Your task to perform on an android device: change the clock style Image 0: 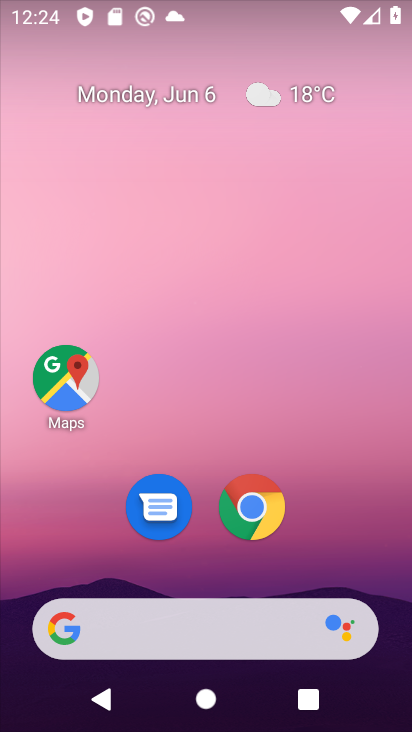
Step 0: drag from (231, 564) to (286, 47)
Your task to perform on an android device: change the clock style Image 1: 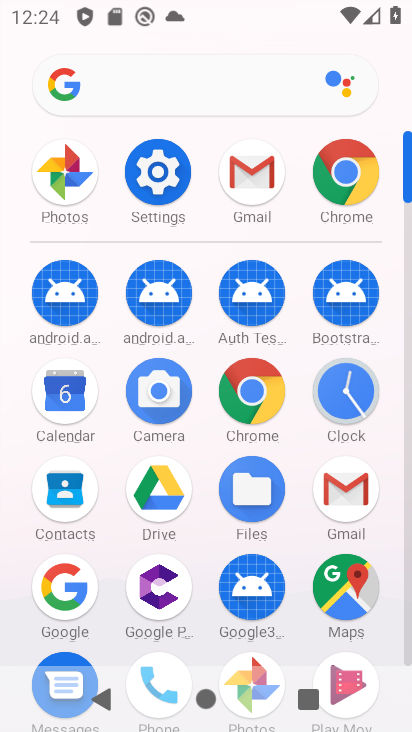
Step 1: click (337, 383)
Your task to perform on an android device: change the clock style Image 2: 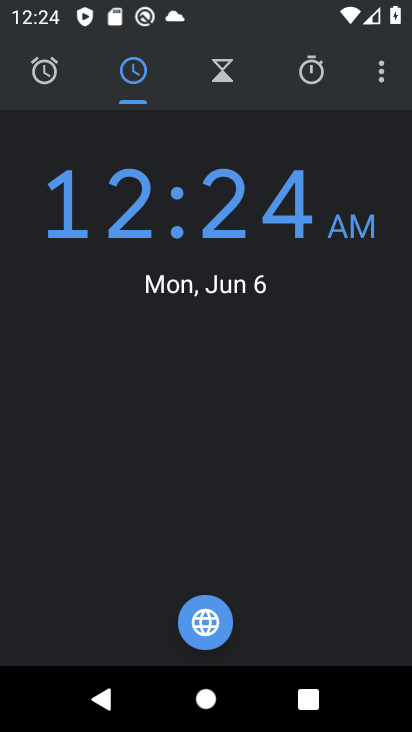
Step 2: click (379, 87)
Your task to perform on an android device: change the clock style Image 3: 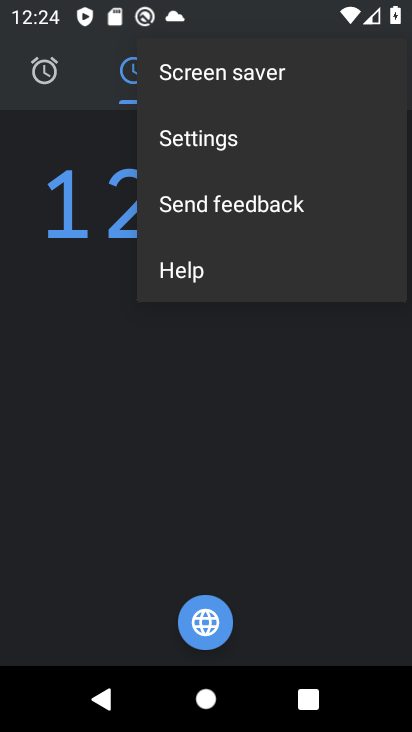
Step 3: click (233, 140)
Your task to perform on an android device: change the clock style Image 4: 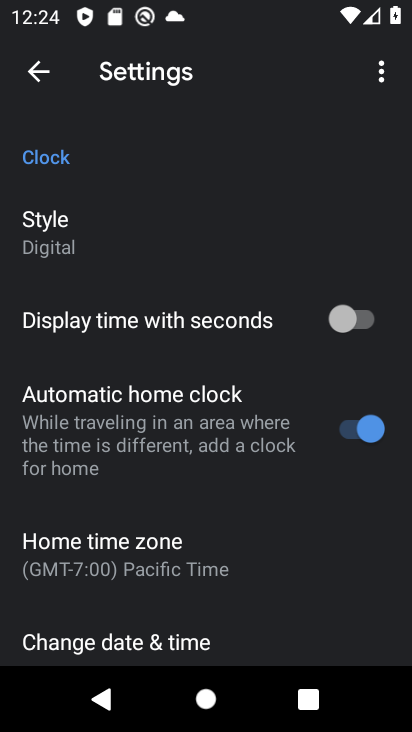
Step 4: click (69, 240)
Your task to perform on an android device: change the clock style Image 5: 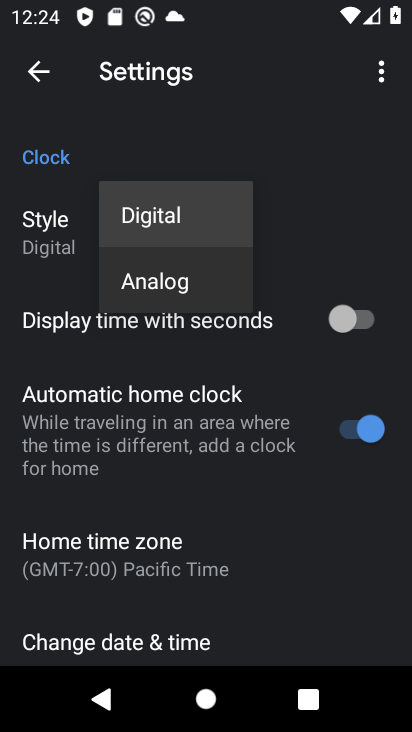
Step 5: click (161, 292)
Your task to perform on an android device: change the clock style Image 6: 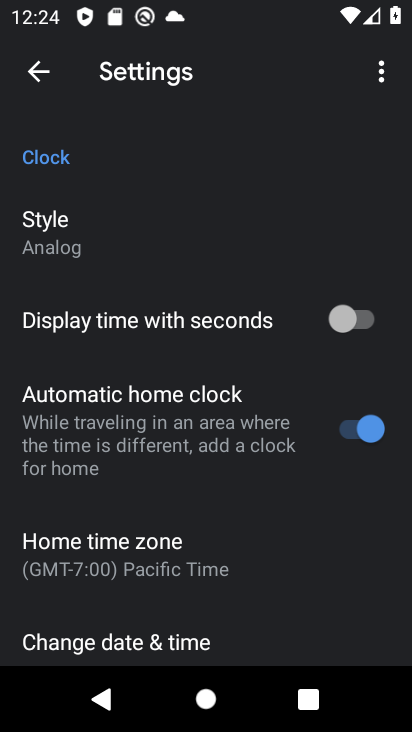
Step 6: task complete